Your task to perform on an android device: turn on notifications settings in the gmail app Image 0: 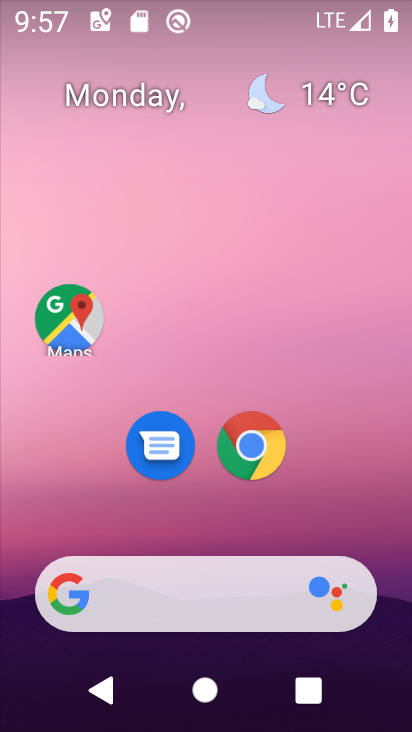
Step 0: drag from (205, 519) to (210, 11)
Your task to perform on an android device: turn on notifications settings in the gmail app Image 1: 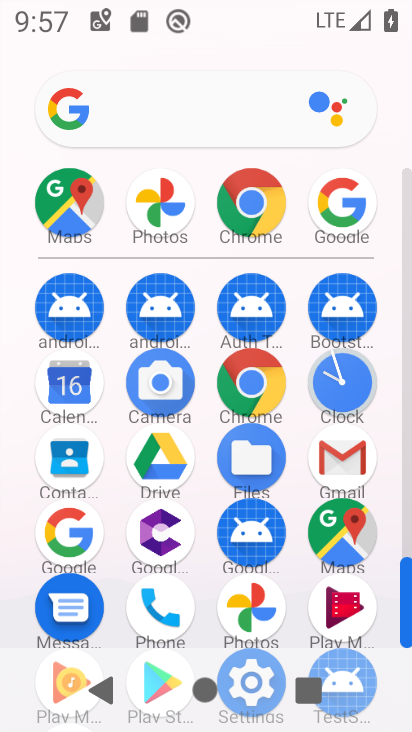
Step 1: click (339, 444)
Your task to perform on an android device: turn on notifications settings in the gmail app Image 2: 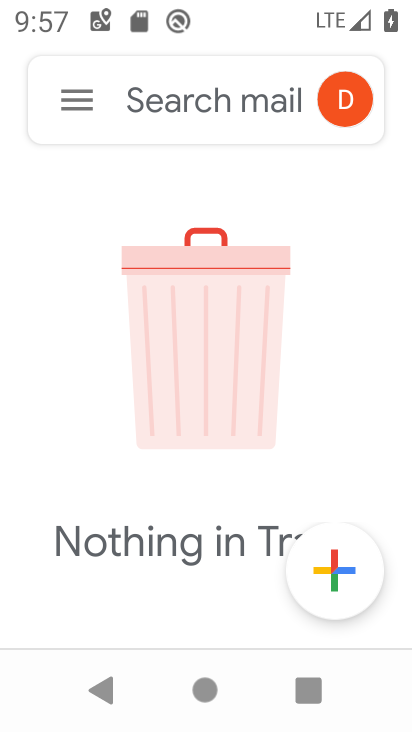
Step 2: click (77, 95)
Your task to perform on an android device: turn on notifications settings in the gmail app Image 3: 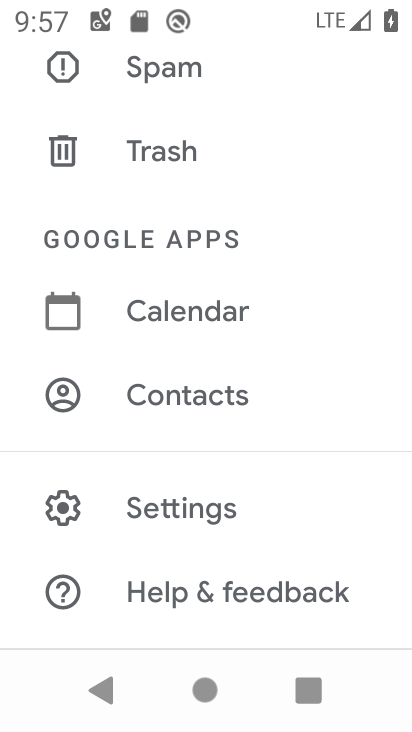
Step 3: drag from (110, 126) to (100, 662)
Your task to perform on an android device: turn on notifications settings in the gmail app Image 4: 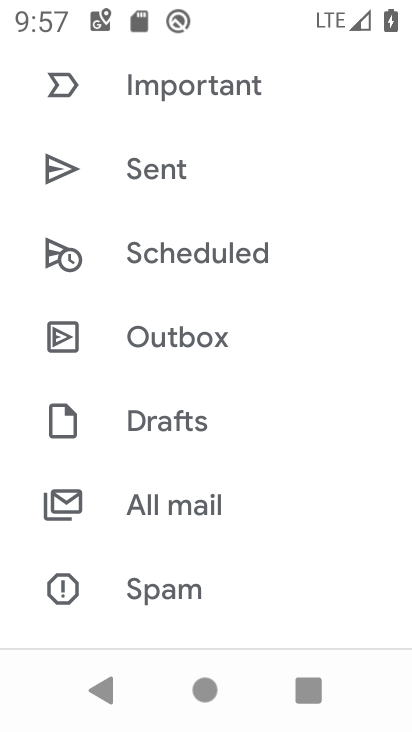
Step 4: drag from (112, 81) to (115, 665)
Your task to perform on an android device: turn on notifications settings in the gmail app Image 5: 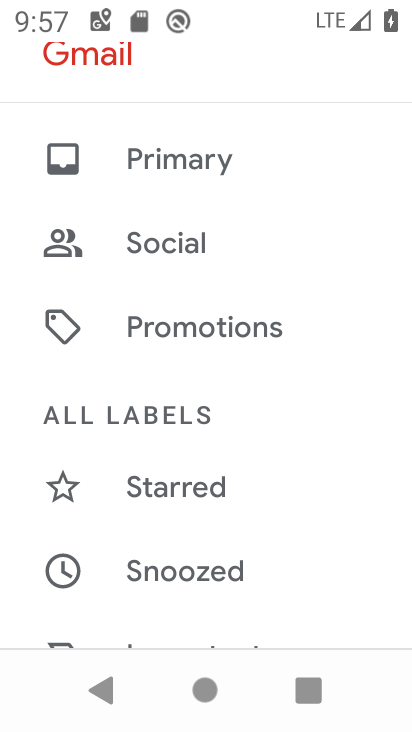
Step 5: drag from (103, 136) to (97, 420)
Your task to perform on an android device: turn on notifications settings in the gmail app Image 6: 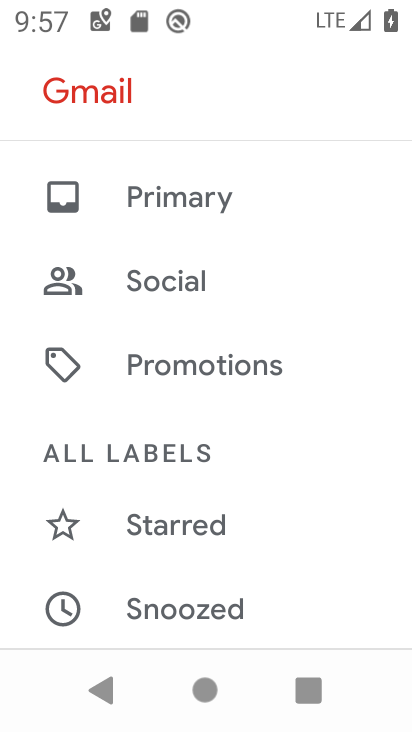
Step 6: drag from (100, 608) to (123, 34)
Your task to perform on an android device: turn on notifications settings in the gmail app Image 7: 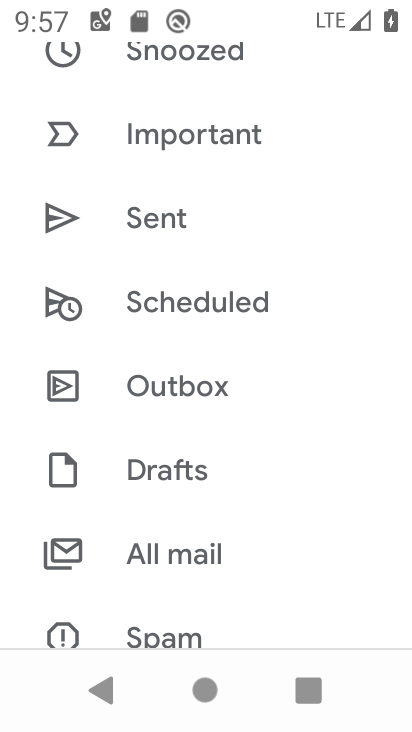
Step 7: drag from (104, 634) to (129, 20)
Your task to perform on an android device: turn on notifications settings in the gmail app Image 8: 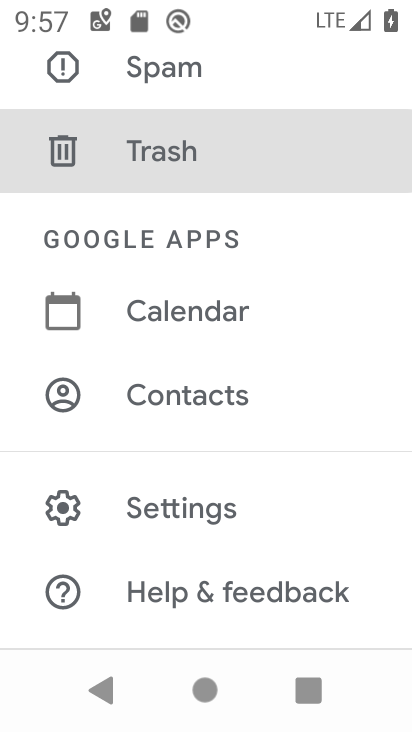
Step 8: click (107, 502)
Your task to perform on an android device: turn on notifications settings in the gmail app Image 9: 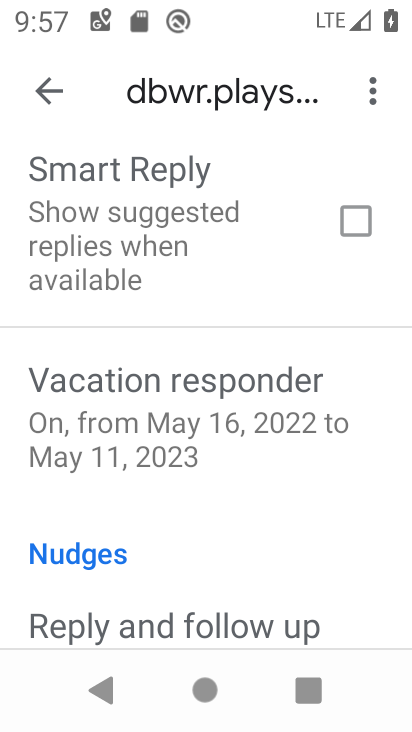
Step 9: click (56, 93)
Your task to perform on an android device: turn on notifications settings in the gmail app Image 10: 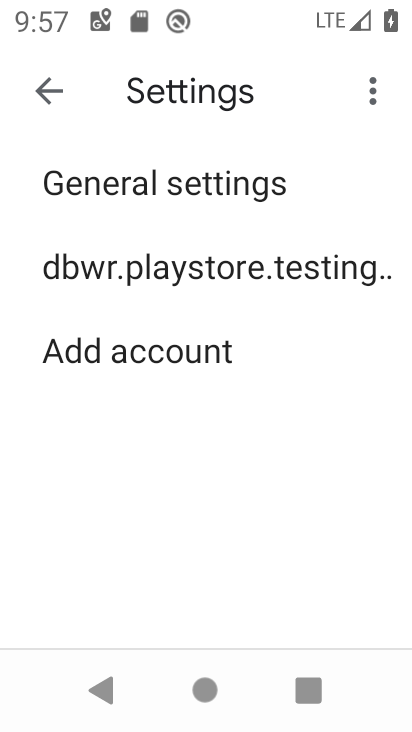
Step 10: click (293, 181)
Your task to perform on an android device: turn on notifications settings in the gmail app Image 11: 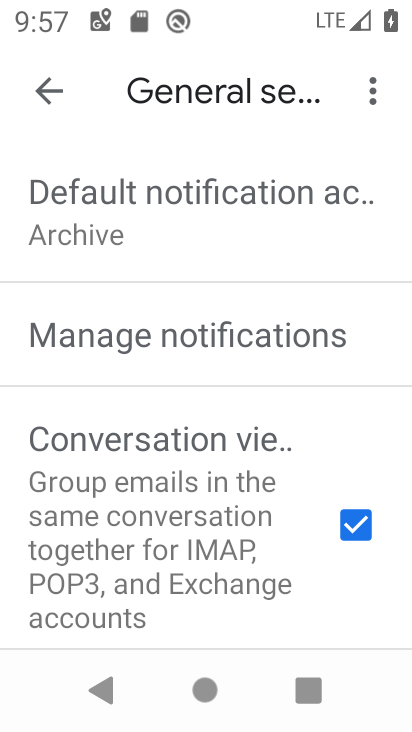
Step 11: click (153, 358)
Your task to perform on an android device: turn on notifications settings in the gmail app Image 12: 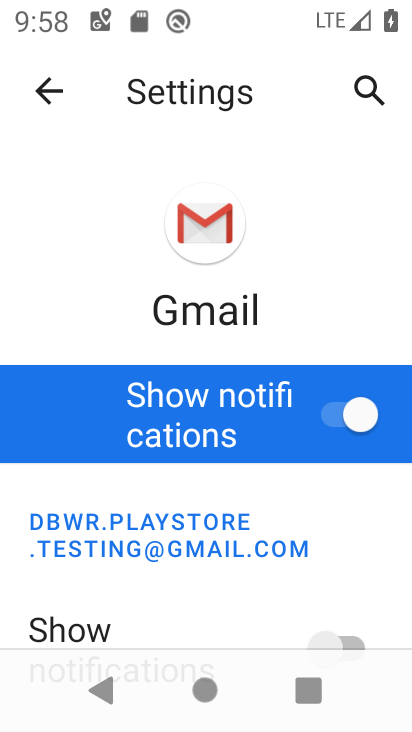
Step 12: task complete